Your task to perform on an android device: Is it going to rain tomorrow? Image 0: 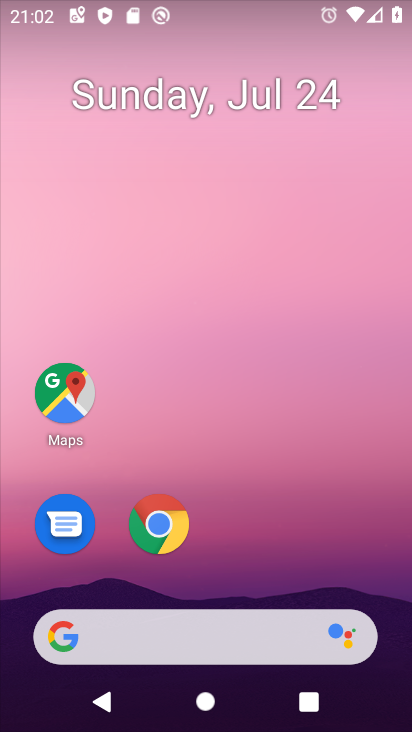
Step 0: drag from (266, 547) to (286, 85)
Your task to perform on an android device: Is it going to rain tomorrow? Image 1: 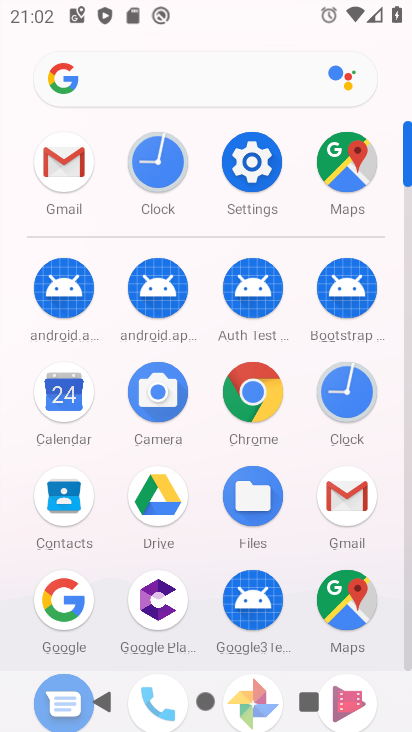
Step 1: click (237, 81)
Your task to perform on an android device: Is it going to rain tomorrow? Image 2: 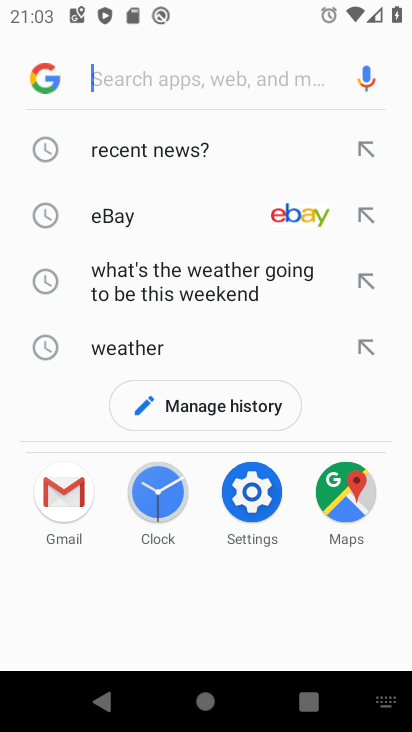
Step 2: click (136, 346)
Your task to perform on an android device: Is it going to rain tomorrow? Image 3: 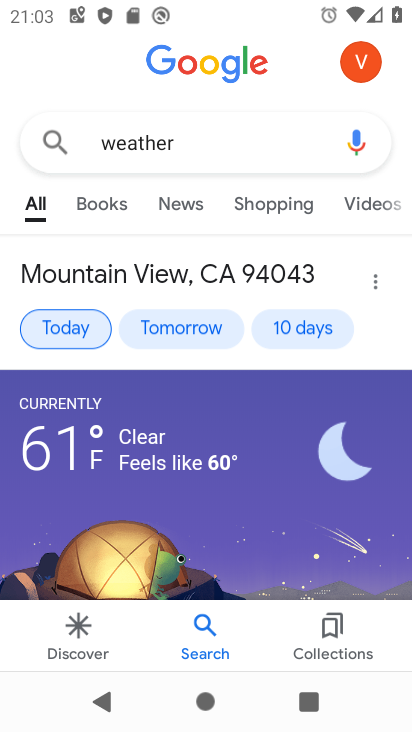
Step 3: click (89, 334)
Your task to perform on an android device: Is it going to rain tomorrow? Image 4: 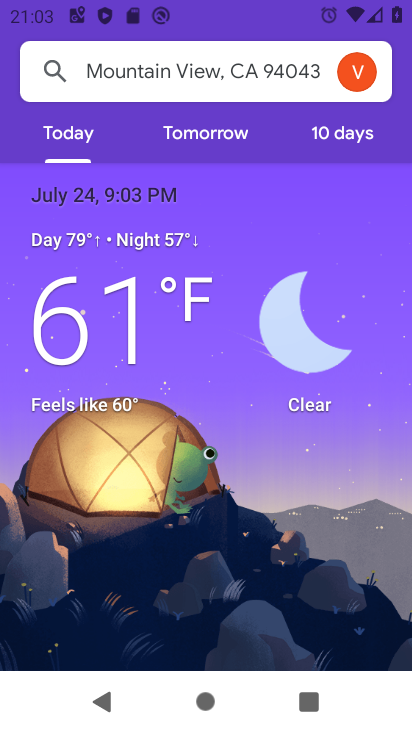
Step 4: click (220, 133)
Your task to perform on an android device: Is it going to rain tomorrow? Image 5: 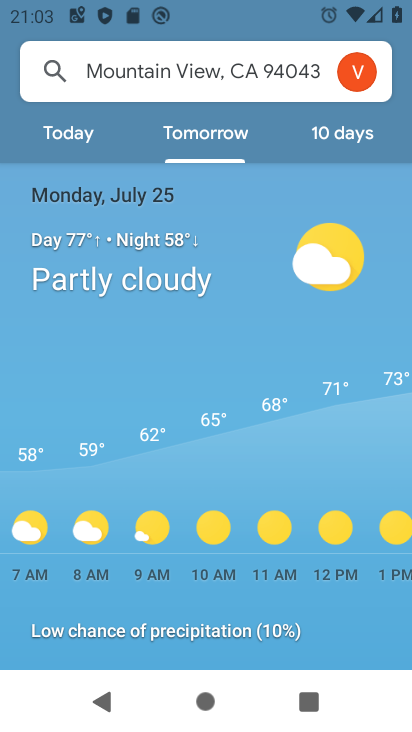
Step 5: task complete